Your task to perform on an android device: check data usage Image 0: 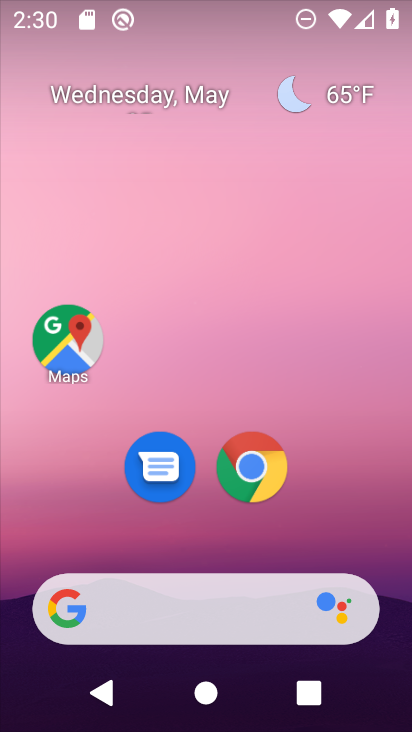
Step 0: drag from (351, 532) to (374, 248)
Your task to perform on an android device: check data usage Image 1: 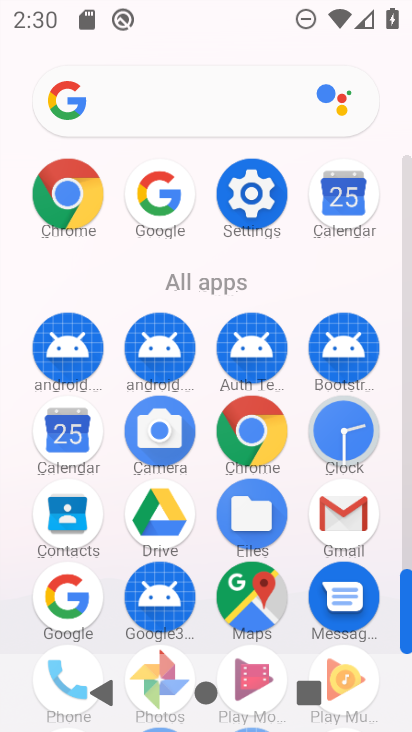
Step 1: click (255, 168)
Your task to perform on an android device: check data usage Image 2: 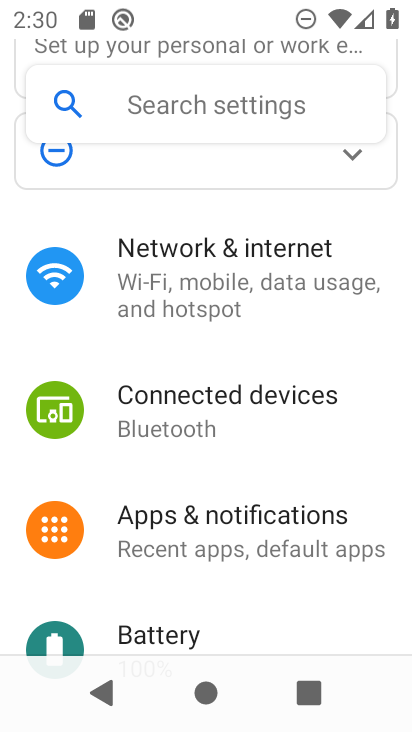
Step 2: click (228, 271)
Your task to perform on an android device: check data usage Image 3: 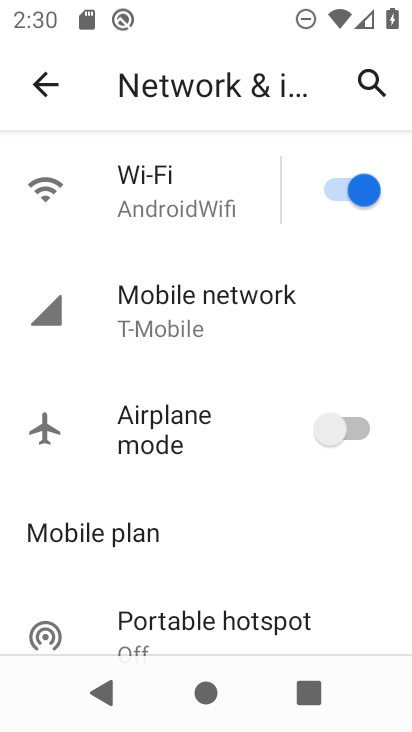
Step 3: click (225, 289)
Your task to perform on an android device: check data usage Image 4: 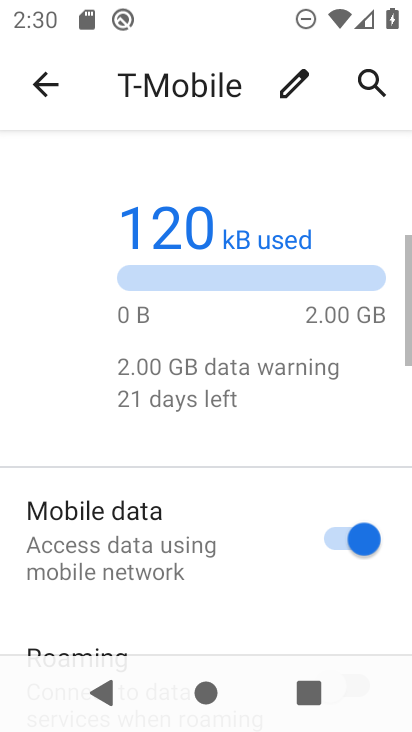
Step 4: task complete